Your task to perform on an android device: toggle sleep mode Image 0: 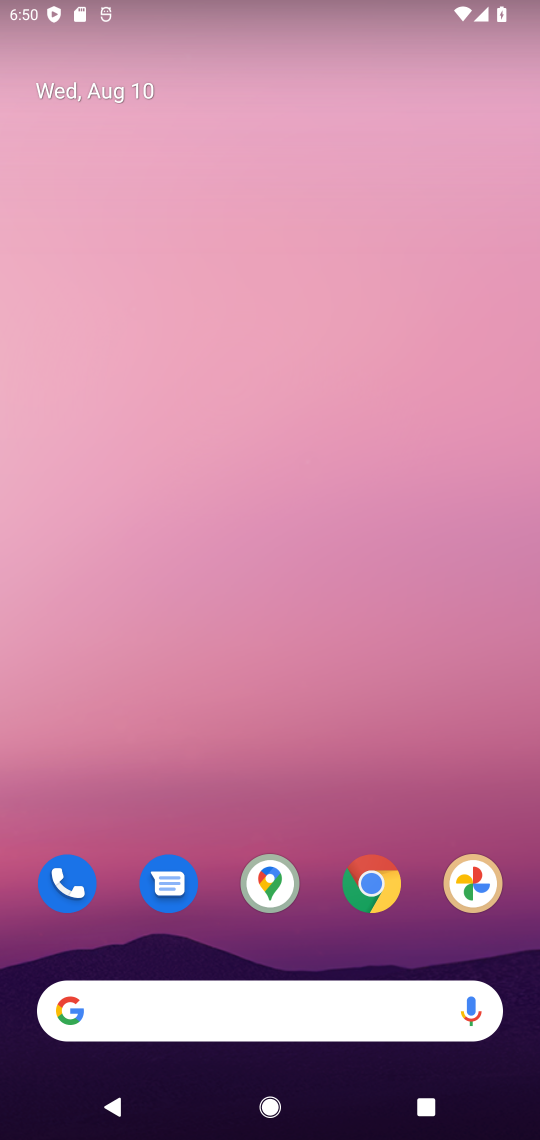
Step 0: drag from (247, 822) to (226, 277)
Your task to perform on an android device: toggle sleep mode Image 1: 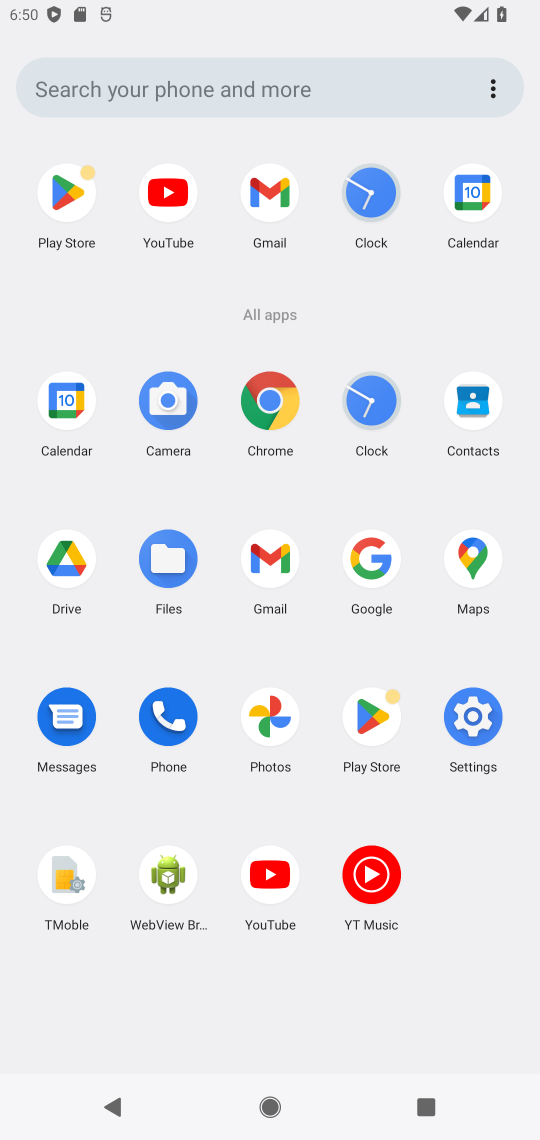
Step 1: click (484, 730)
Your task to perform on an android device: toggle sleep mode Image 2: 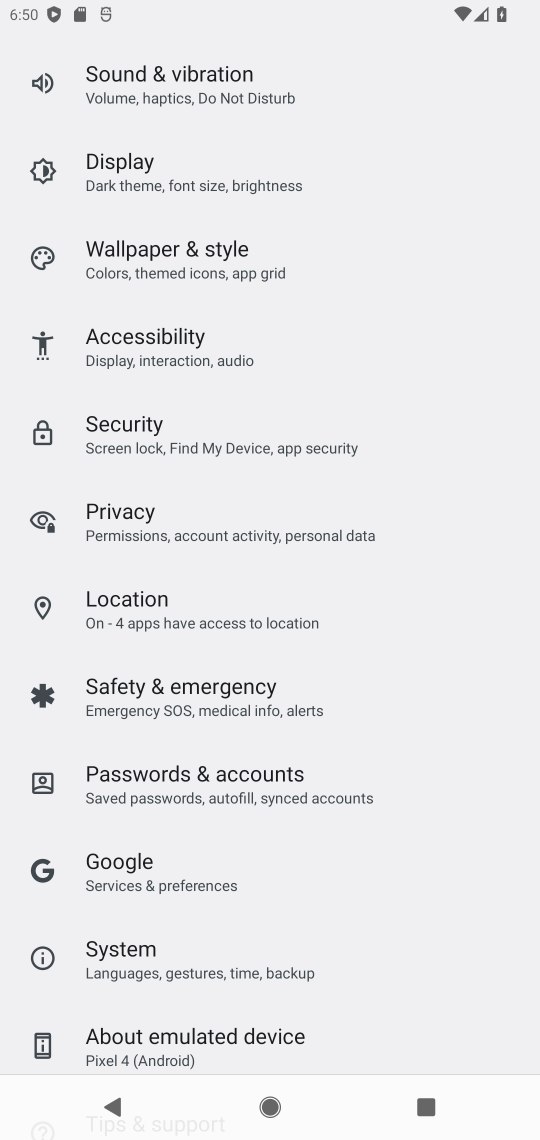
Step 2: task complete